Your task to perform on an android device: toggle wifi Image 0: 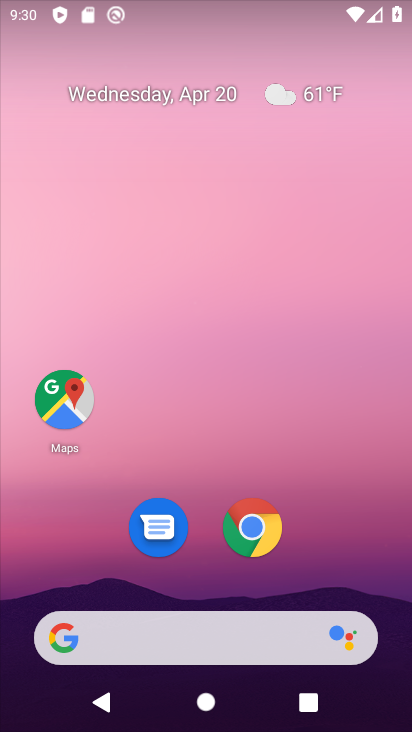
Step 0: drag from (325, 554) to (286, 14)
Your task to perform on an android device: toggle wifi Image 1: 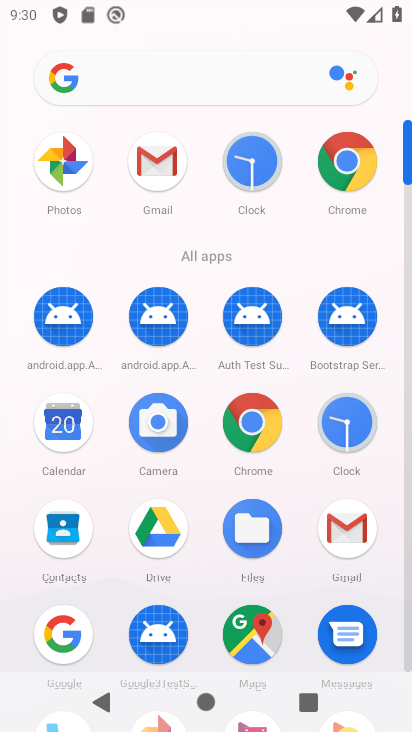
Step 1: drag from (201, 574) to (248, 205)
Your task to perform on an android device: toggle wifi Image 2: 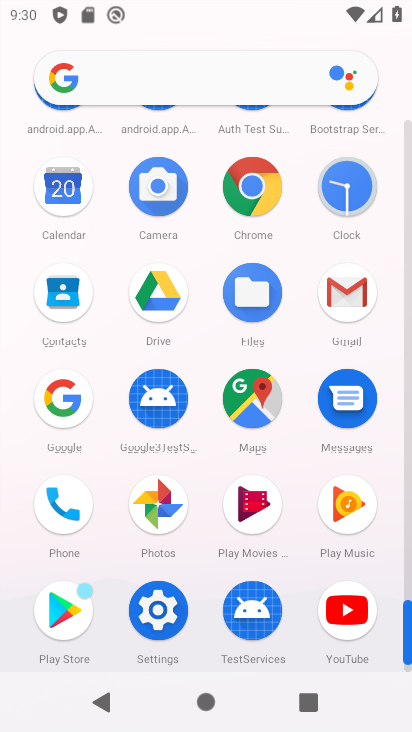
Step 2: click (156, 609)
Your task to perform on an android device: toggle wifi Image 3: 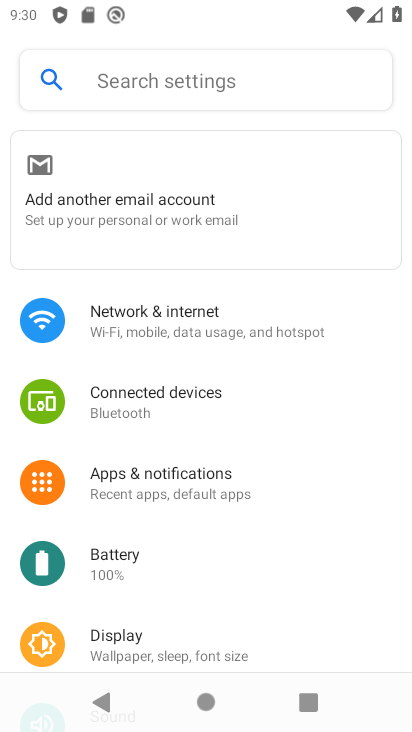
Step 3: click (130, 307)
Your task to perform on an android device: toggle wifi Image 4: 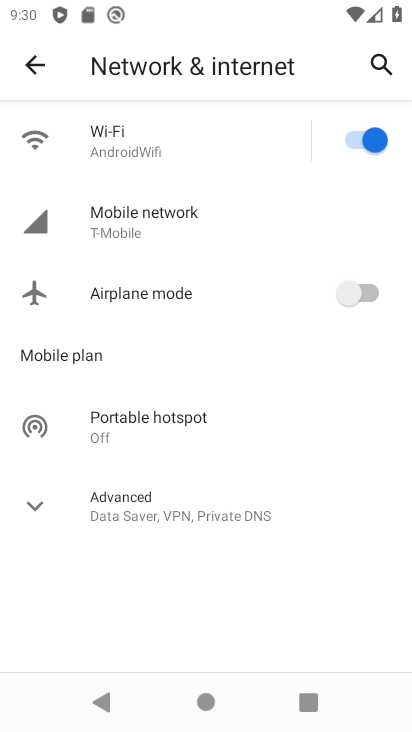
Step 4: click (368, 139)
Your task to perform on an android device: toggle wifi Image 5: 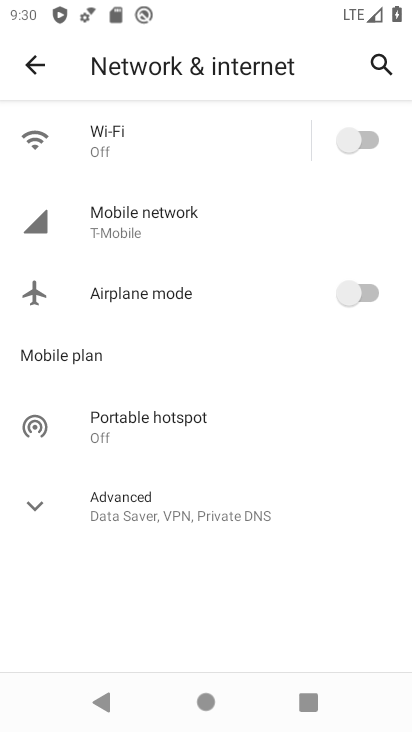
Step 5: task complete